Your task to perform on an android device: Turn off the flashlight Image 0: 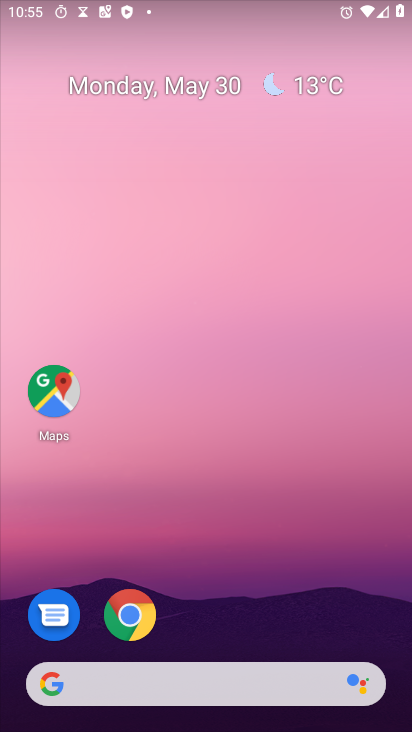
Step 0: drag from (236, 599) to (242, 32)
Your task to perform on an android device: Turn off the flashlight Image 1: 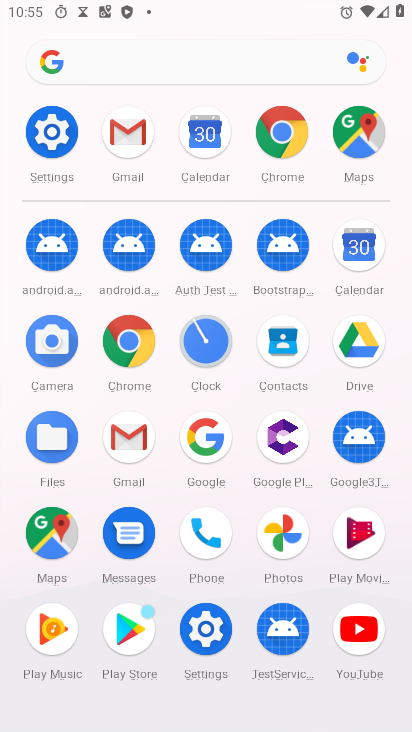
Step 1: click (38, 141)
Your task to perform on an android device: Turn off the flashlight Image 2: 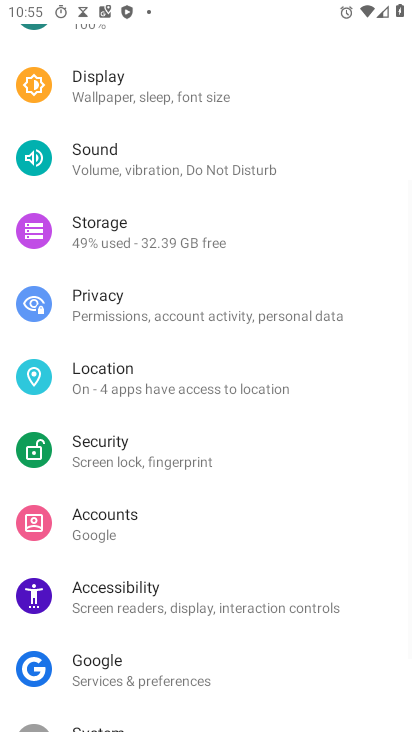
Step 2: task complete